Your task to perform on an android device: stop showing notifications on the lock screen Image 0: 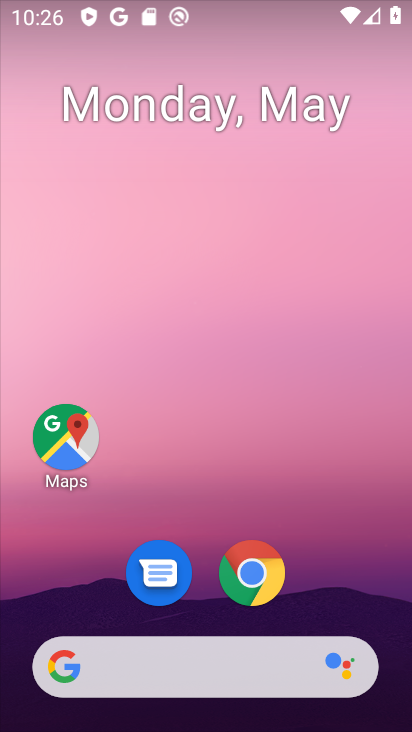
Step 0: drag from (151, 37) to (177, 573)
Your task to perform on an android device: stop showing notifications on the lock screen Image 1: 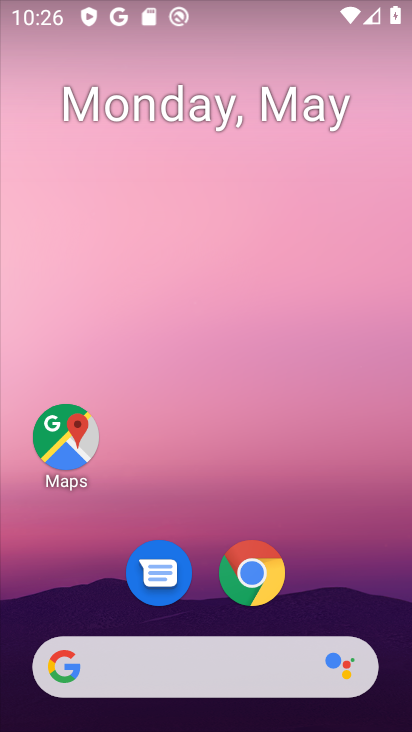
Step 1: drag from (93, 16) to (182, 487)
Your task to perform on an android device: stop showing notifications on the lock screen Image 2: 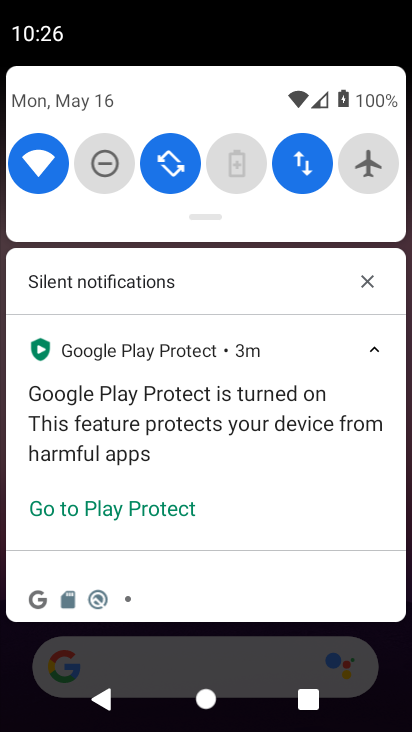
Step 2: drag from (217, 639) to (306, 84)
Your task to perform on an android device: stop showing notifications on the lock screen Image 3: 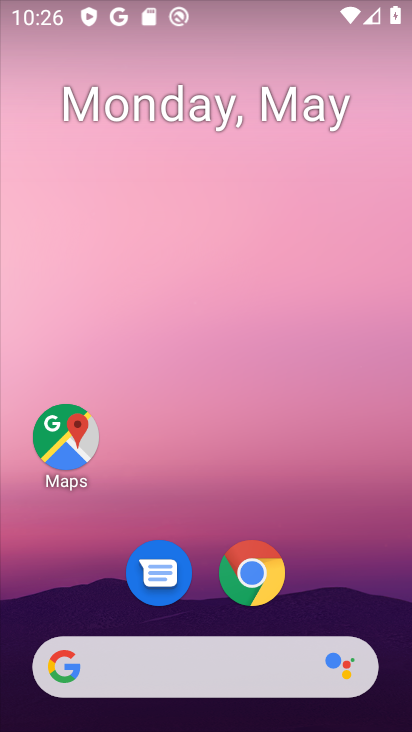
Step 3: drag from (206, 526) to (277, 12)
Your task to perform on an android device: stop showing notifications on the lock screen Image 4: 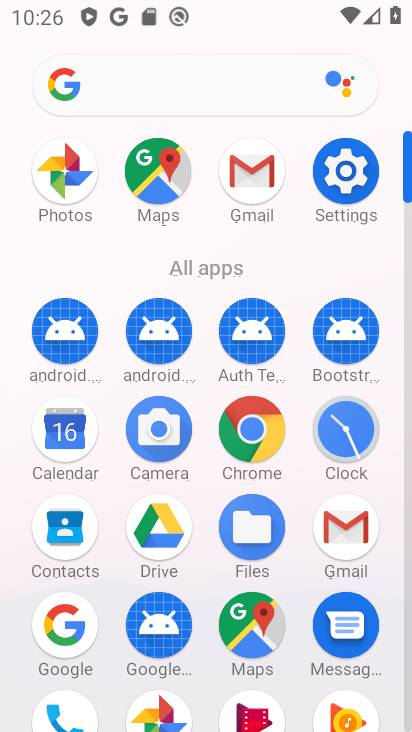
Step 4: click (333, 164)
Your task to perform on an android device: stop showing notifications on the lock screen Image 5: 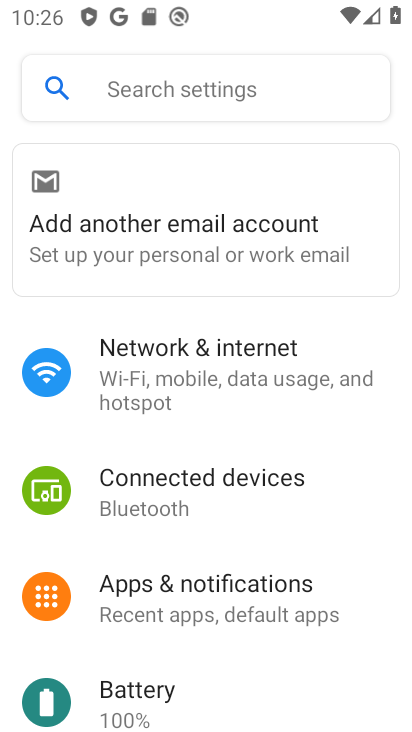
Step 5: click (191, 617)
Your task to perform on an android device: stop showing notifications on the lock screen Image 6: 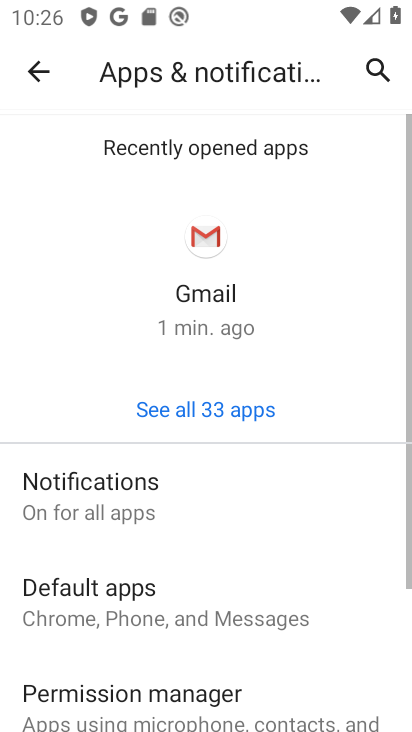
Step 6: drag from (195, 525) to (258, 212)
Your task to perform on an android device: stop showing notifications on the lock screen Image 7: 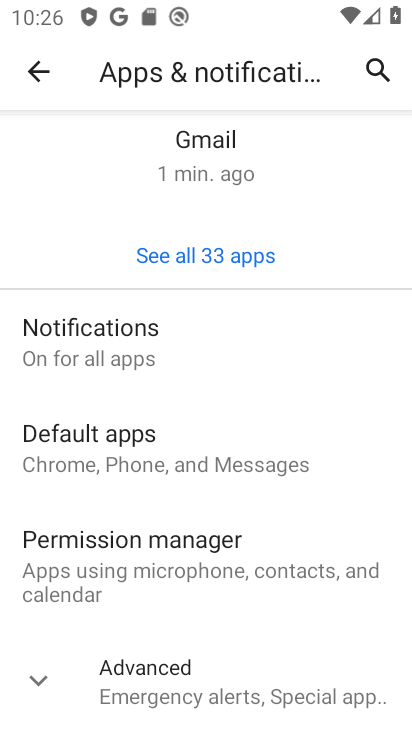
Step 7: click (140, 340)
Your task to perform on an android device: stop showing notifications on the lock screen Image 8: 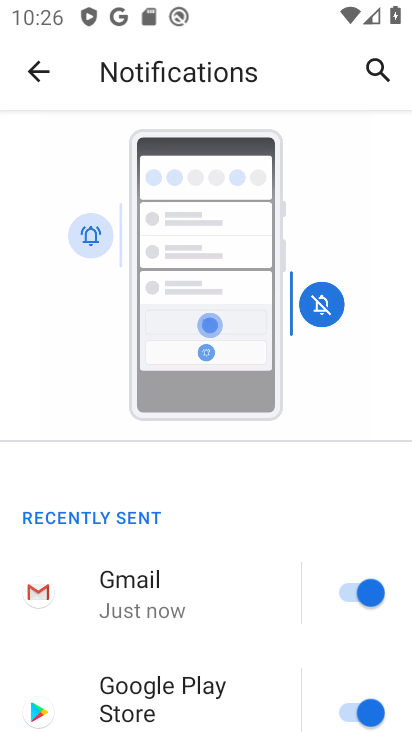
Step 8: drag from (132, 695) to (225, 256)
Your task to perform on an android device: stop showing notifications on the lock screen Image 9: 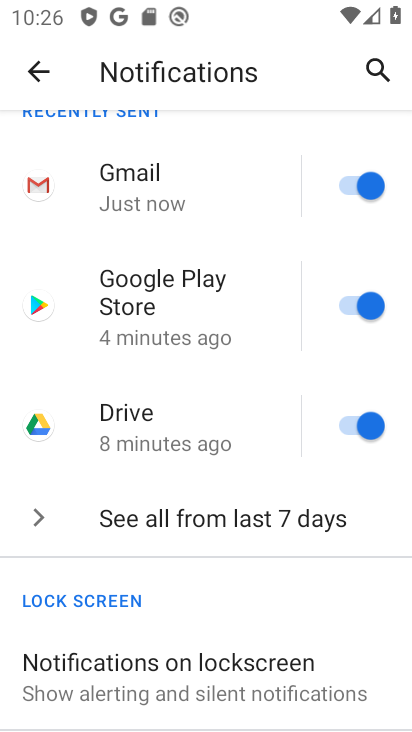
Step 9: click (221, 685)
Your task to perform on an android device: stop showing notifications on the lock screen Image 10: 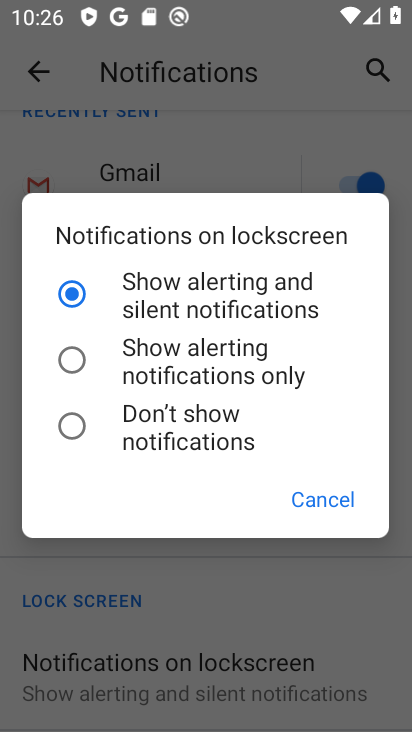
Step 10: click (80, 430)
Your task to perform on an android device: stop showing notifications on the lock screen Image 11: 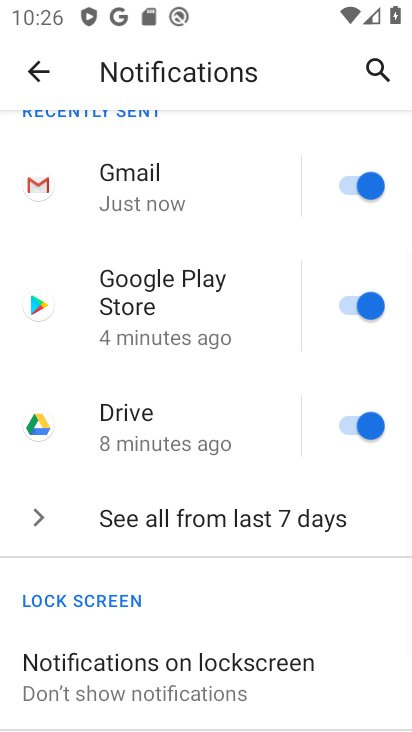
Step 11: task complete